Your task to perform on an android device: toggle improve location accuracy Image 0: 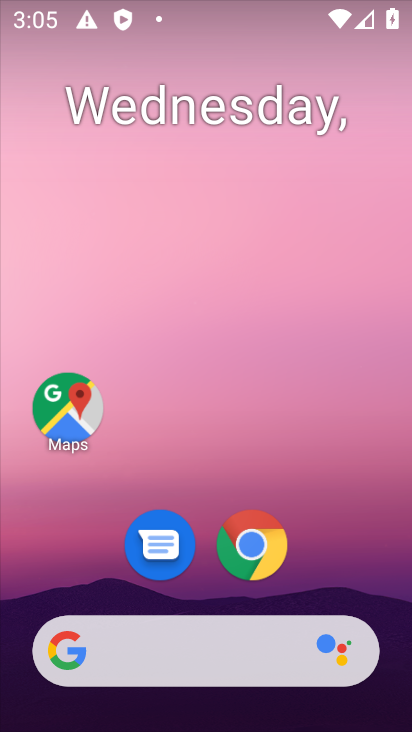
Step 0: drag from (235, 617) to (200, 158)
Your task to perform on an android device: toggle improve location accuracy Image 1: 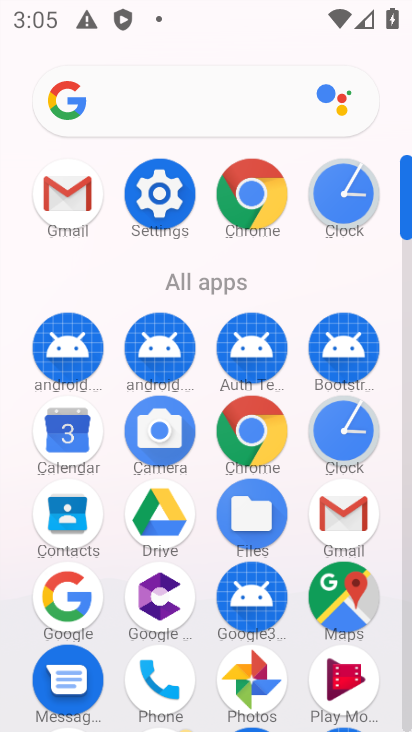
Step 1: click (173, 174)
Your task to perform on an android device: toggle improve location accuracy Image 2: 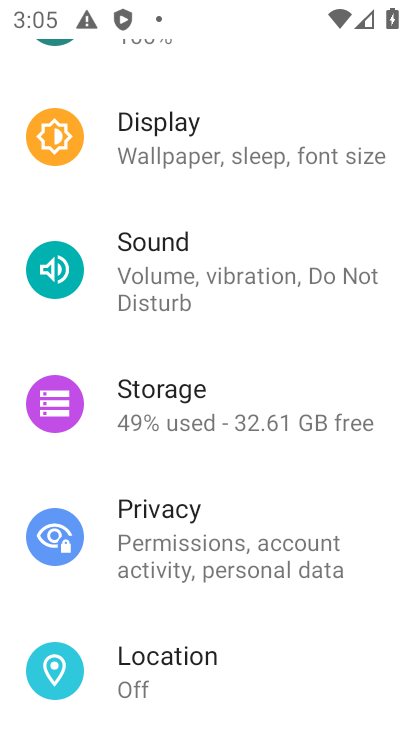
Step 2: drag from (234, 580) to (213, 124)
Your task to perform on an android device: toggle improve location accuracy Image 3: 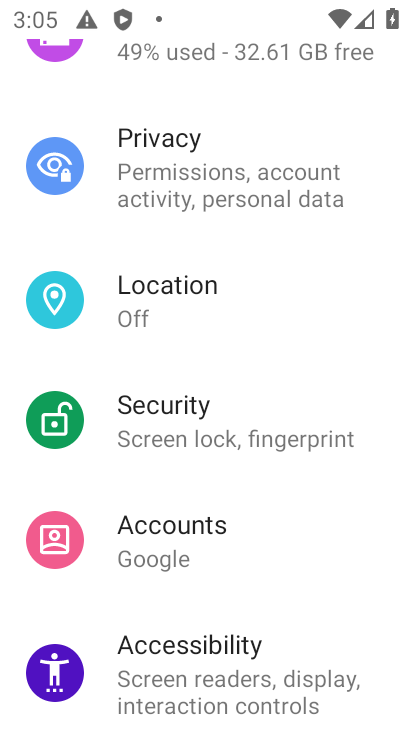
Step 3: click (184, 314)
Your task to perform on an android device: toggle improve location accuracy Image 4: 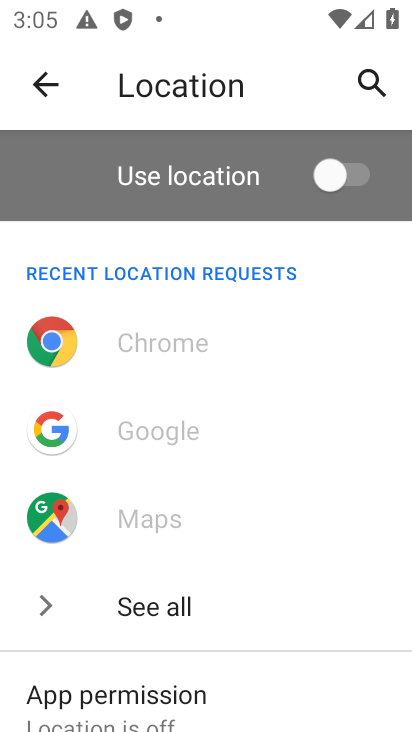
Step 4: drag from (204, 594) to (230, 395)
Your task to perform on an android device: toggle improve location accuracy Image 5: 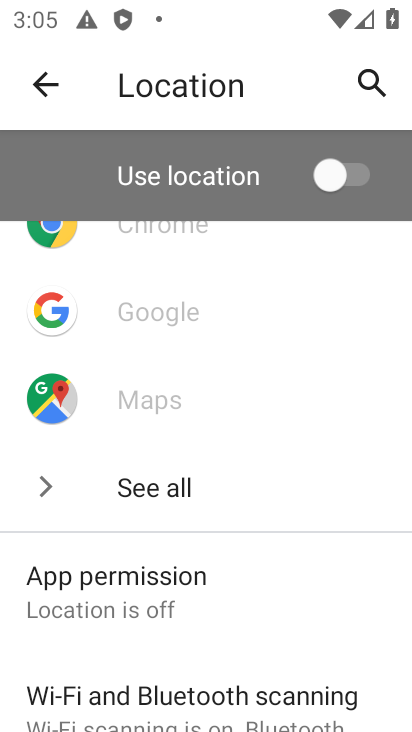
Step 5: click (340, 191)
Your task to perform on an android device: toggle improve location accuracy Image 6: 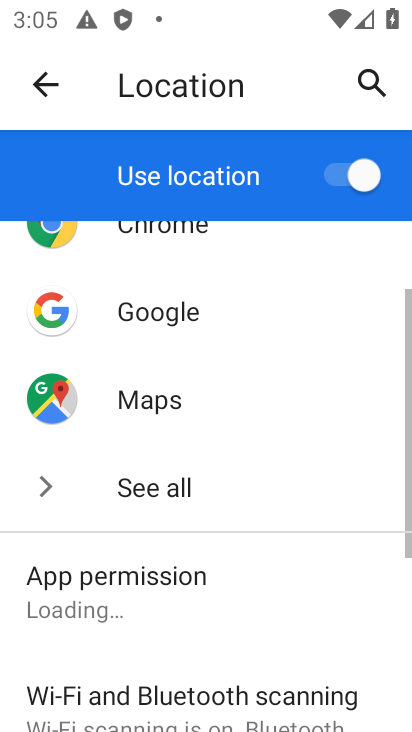
Step 6: drag from (282, 598) to (293, 172)
Your task to perform on an android device: toggle improve location accuracy Image 7: 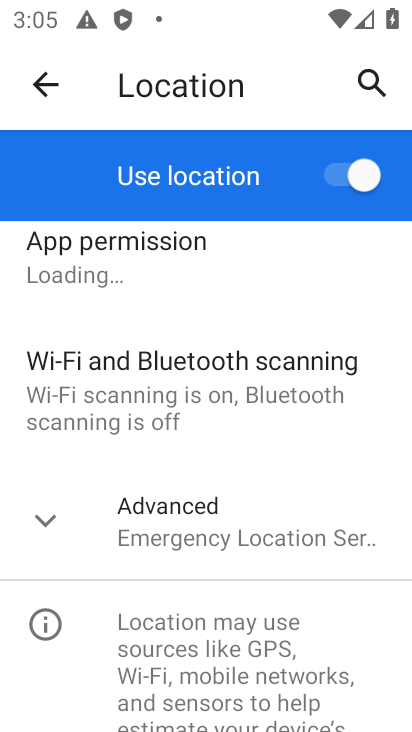
Step 7: click (233, 522)
Your task to perform on an android device: toggle improve location accuracy Image 8: 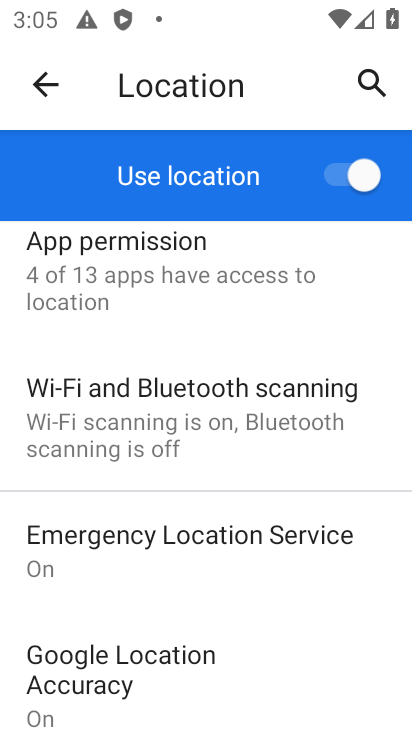
Step 8: click (175, 654)
Your task to perform on an android device: toggle improve location accuracy Image 9: 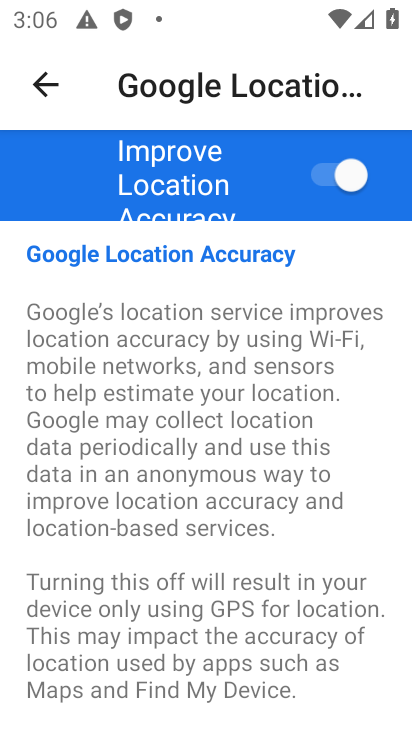
Step 9: click (345, 181)
Your task to perform on an android device: toggle improve location accuracy Image 10: 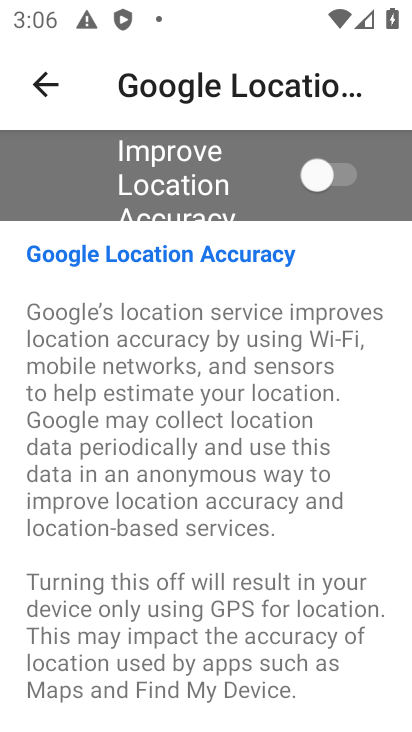
Step 10: task complete